Your task to perform on an android device: Open Amazon Image 0: 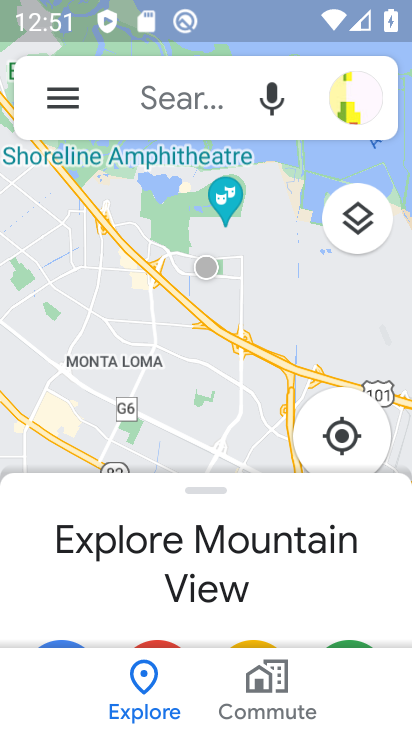
Step 0: press home button
Your task to perform on an android device: Open Amazon Image 1: 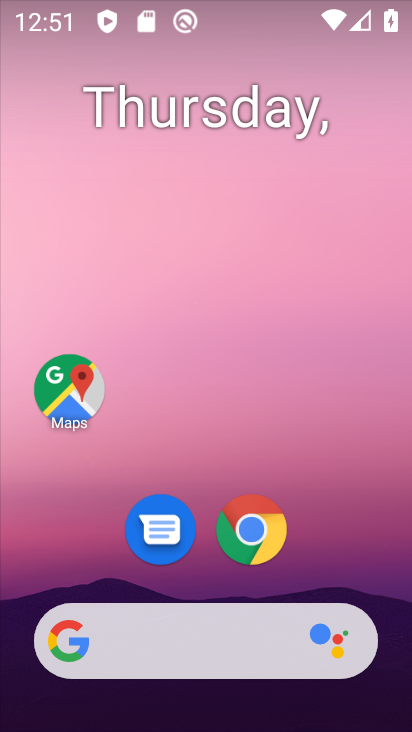
Step 1: click (253, 527)
Your task to perform on an android device: Open Amazon Image 2: 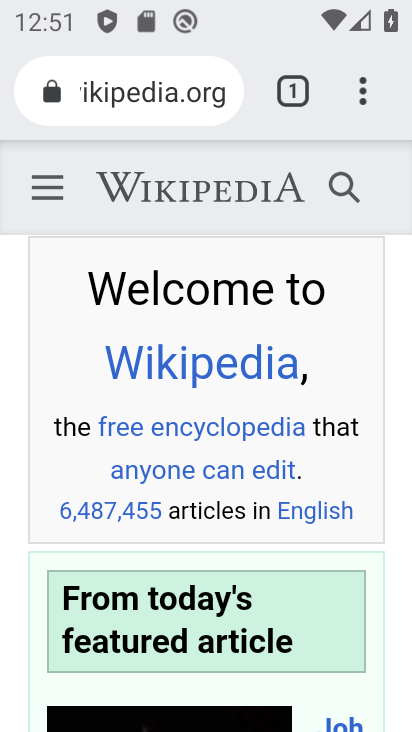
Step 2: task complete